Your task to perform on an android device: Check the weather Image 0: 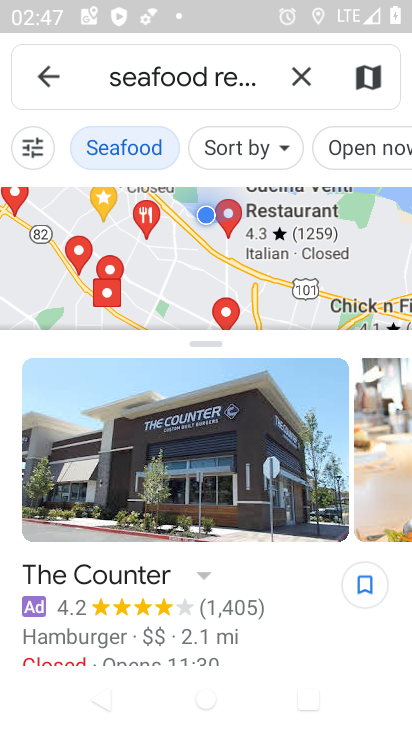
Step 0: press home button
Your task to perform on an android device: Check the weather Image 1: 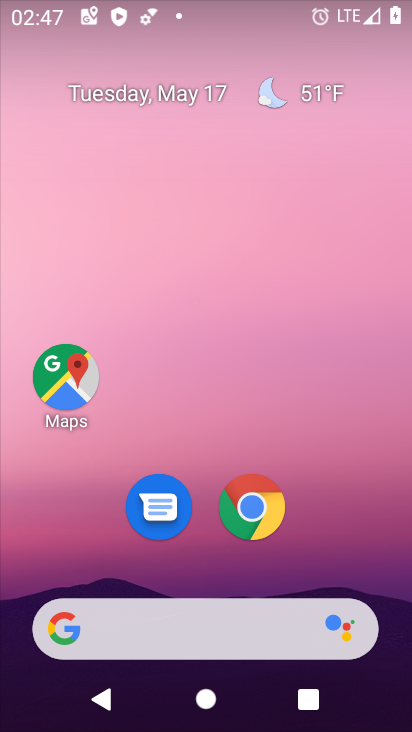
Step 1: click (170, 636)
Your task to perform on an android device: Check the weather Image 2: 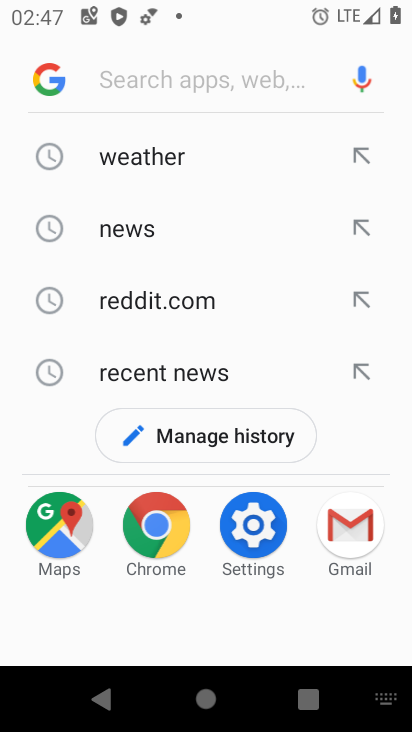
Step 2: click (177, 70)
Your task to perform on an android device: Check the weather Image 3: 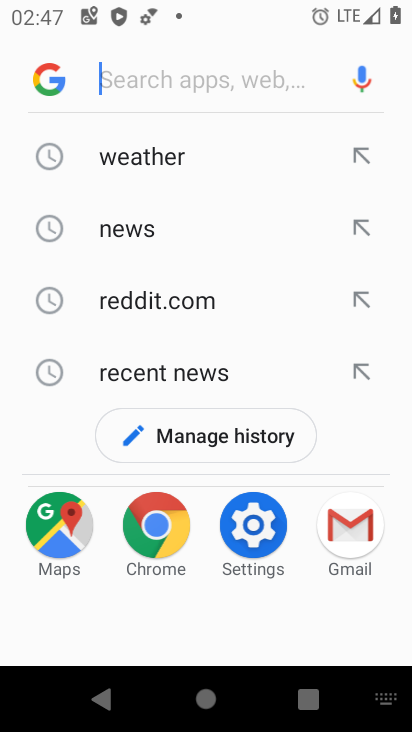
Step 3: type "weather"
Your task to perform on an android device: Check the weather Image 4: 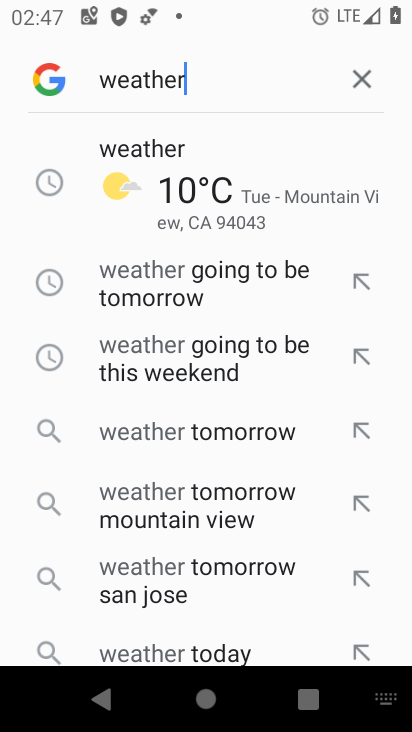
Step 4: click (164, 151)
Your task to perform on an android device: Check the weather Image 5: 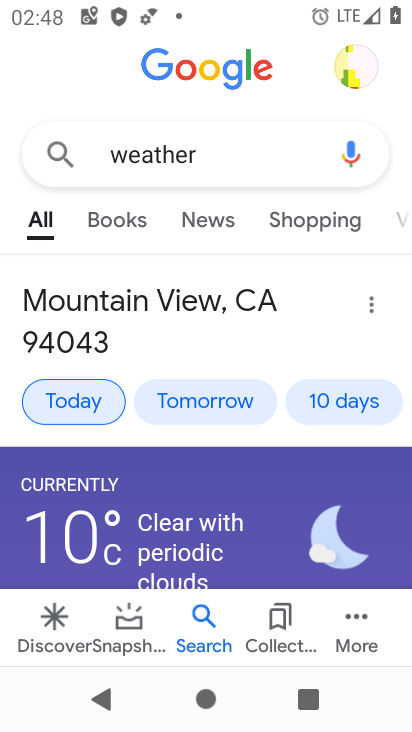
Step 5: task complete